Your task to perform on an android device: Go to privacy settings Image 0: 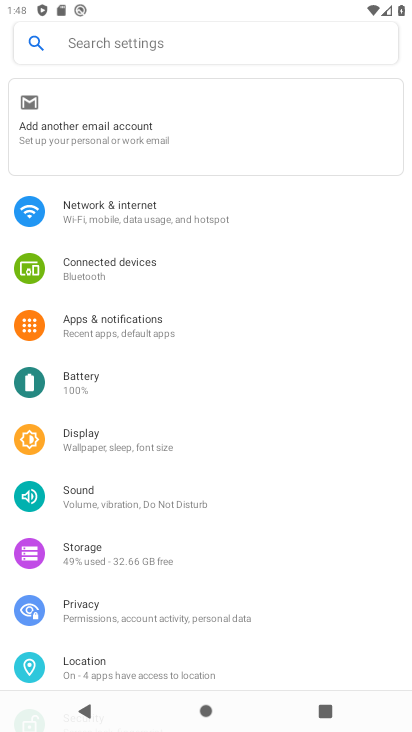
Step 0: click (208, 620)
Your task to perform on an android device: Go to privacy settings Image 1: 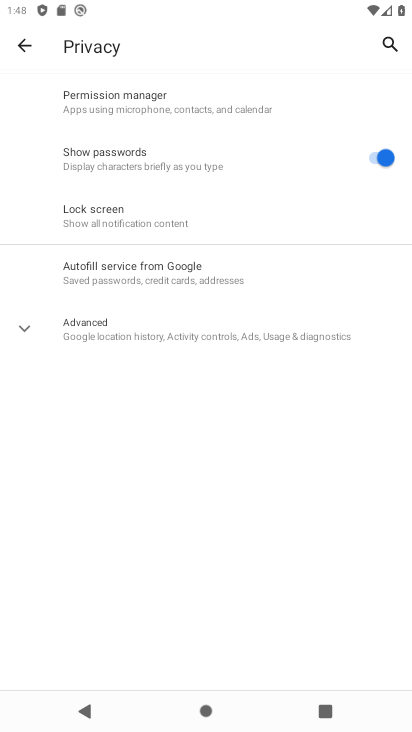
Step 1: task complete